Your task to perform on an android device: Open calendar and show me the fourth week of next month Image 0: 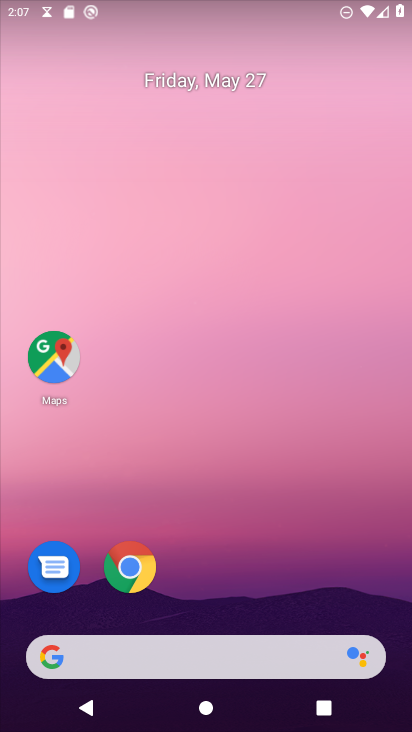
Step 0: drag from (210, 619) to (169, 165)
Your task to perform on an android device: Open calendar and show me the fourth week of next month Image 1: 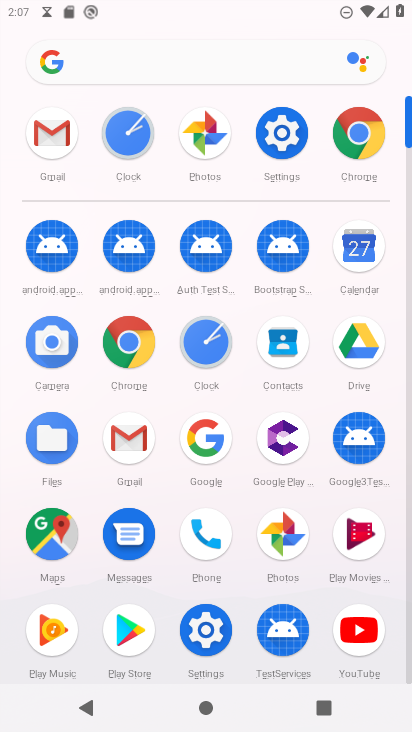
Step 1: click (355, 251)
Your task to perform on an android device: Open calendar and show me the fourth week of next month Image 2: 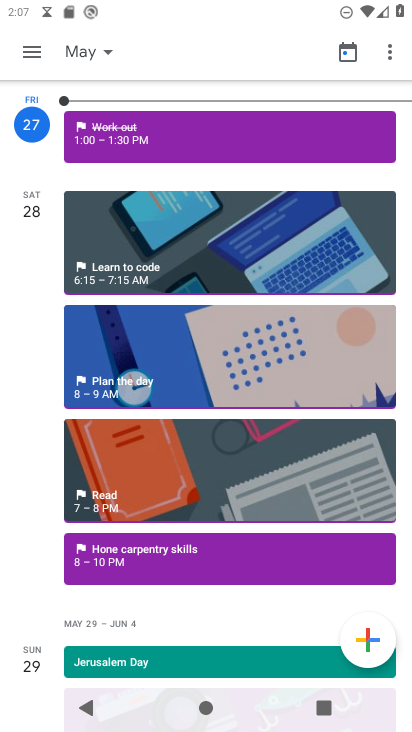
Step 2: click (85, 58)
Your task to perform on an android device: Open calendar and show me the fourth week of next month Image 3: 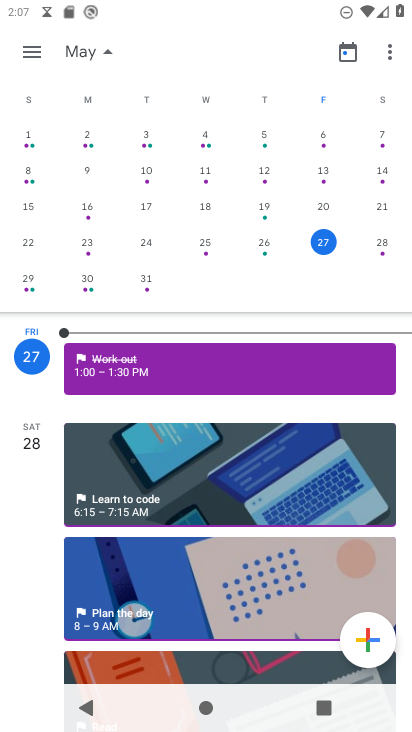
Step 3: drag from (389, 207) to (0, 221)
Your task to perform on an android device: Open calendar and show me the fourth week of next month Image 4: 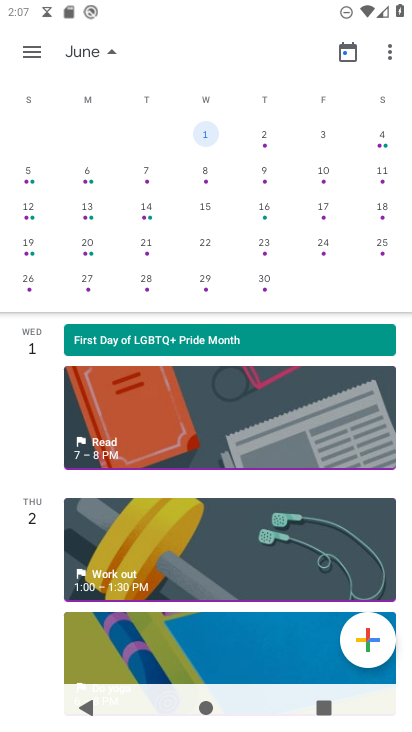
Step 4: click (212, 248)
Your task to perform on an android device: Open calendar and show me the fourth week of next month Image 5: 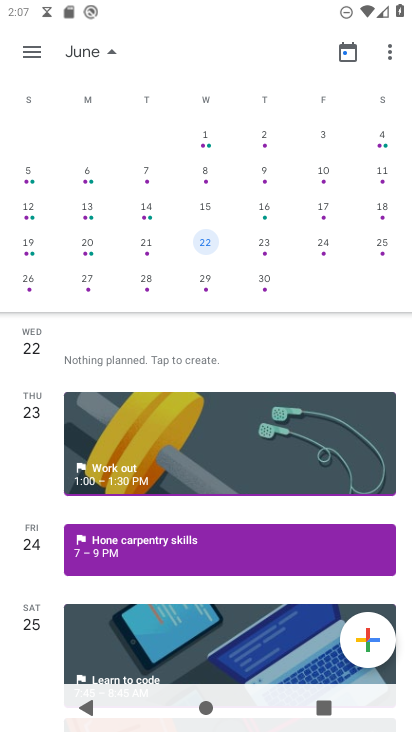
Step 5: task complete